Your task to perform on an android device: open a new tab in the chrome app Image 0: 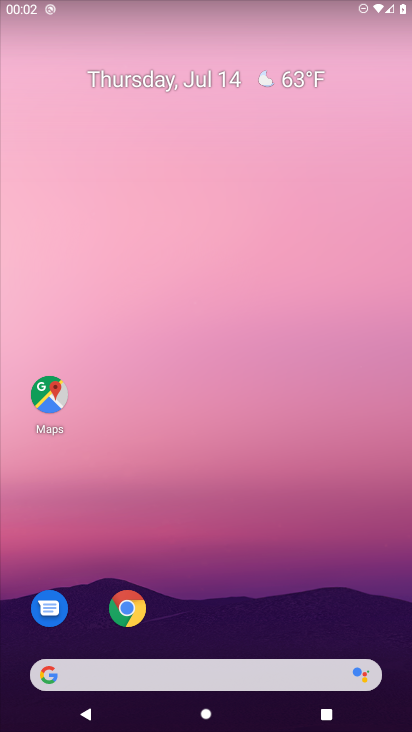
Step 0: press home button
Your task to perform on an android device: open a new tab in the chrome app Image 1: 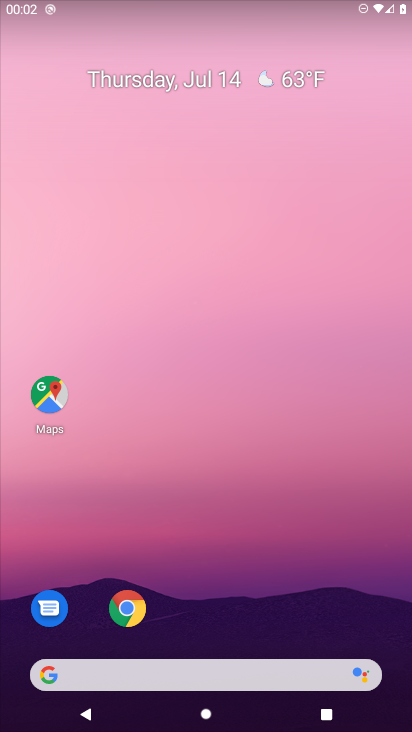
Step 1: drag from (256, 651) to (150, 64)
Your task to perform on an android device: open a new tab in the chrome app Image 2: 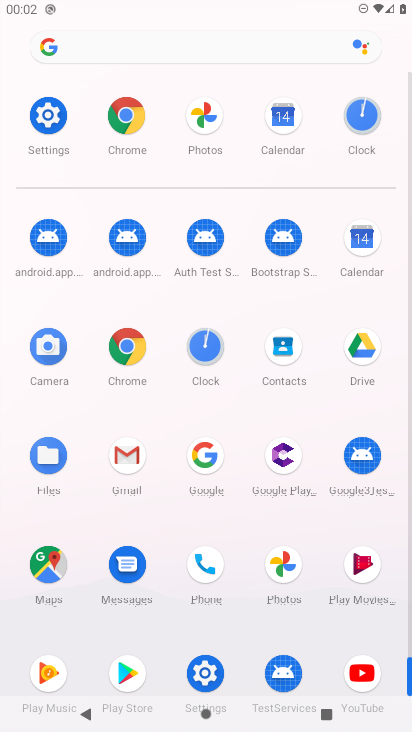
Step 2: click (130, 116)
Your task to perform on an android device: open a new tab in the chrome app Image 3: 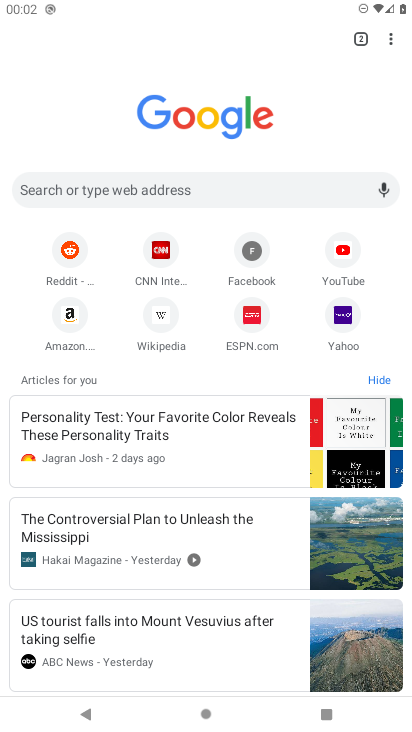
Step 3: click (361, 37)
Your task to perform on an android device: open a new tab in the chrome app Image 4: 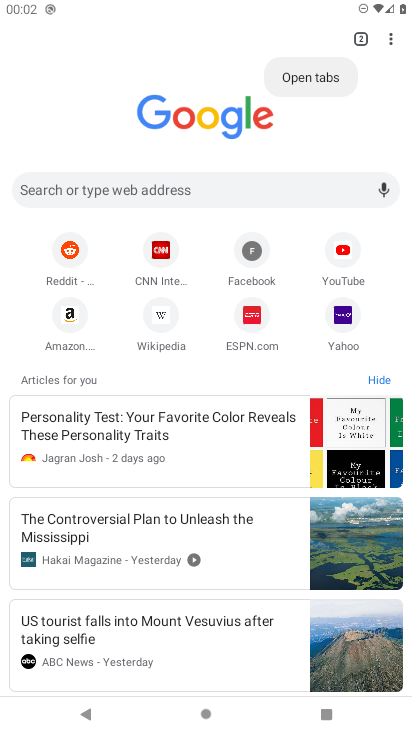
Step 4: click (361, 37)
Your task to perform on an android device: open a new tab in the chrome app Image 5: 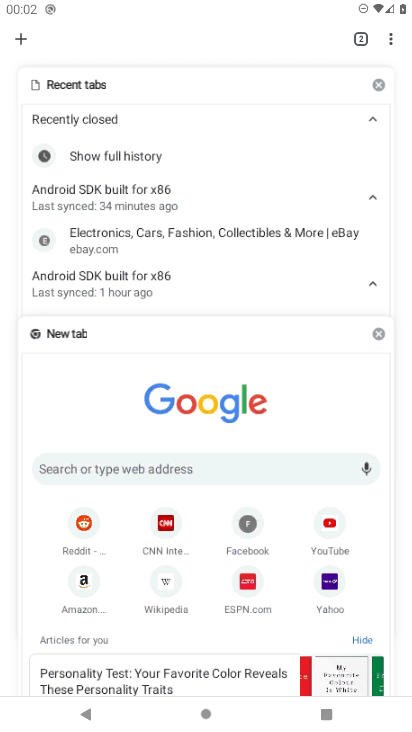
Step 5: click (18, 42)
Your task to perform on an android device: open a new tab in the chrome app Image 6: 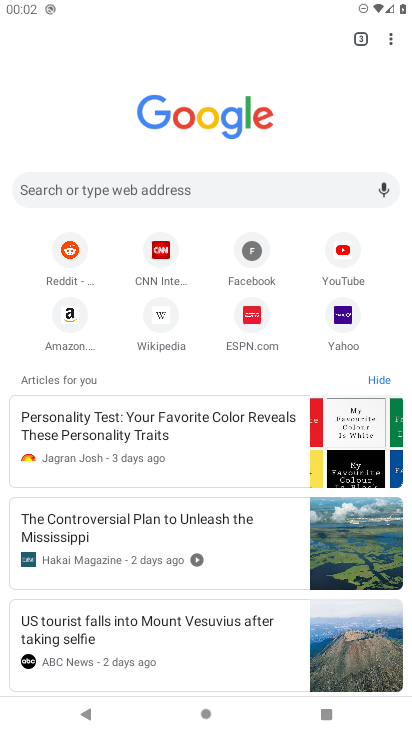
Step 6: task complete